Your task to perform on an android device: toggle sleep mode Image 0: 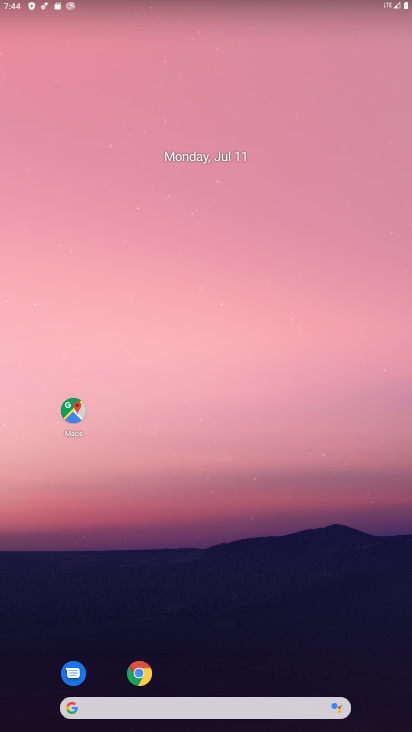
Step 0: drag from (155, 689) to (132, 332)
Your task to perform on an android device: toggle sleep mode Image 1: 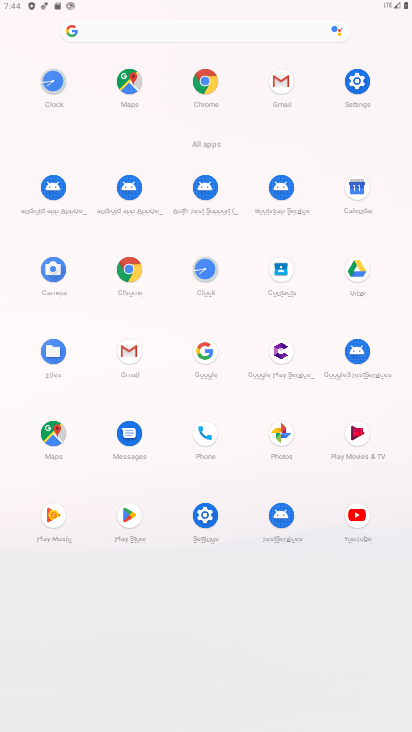
Step 1: click (355, 92)
Your task to perform on an android device: toggle sleep mode Image 2: 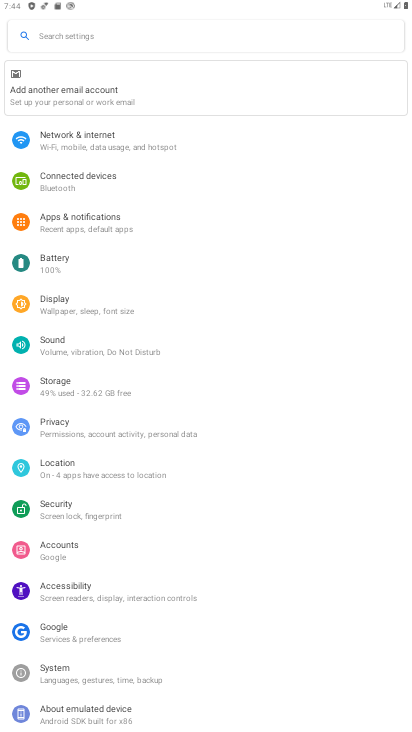
Step 2: click (97, 221)
Your task to perform on an android device: toggle sleep mode Image 3: 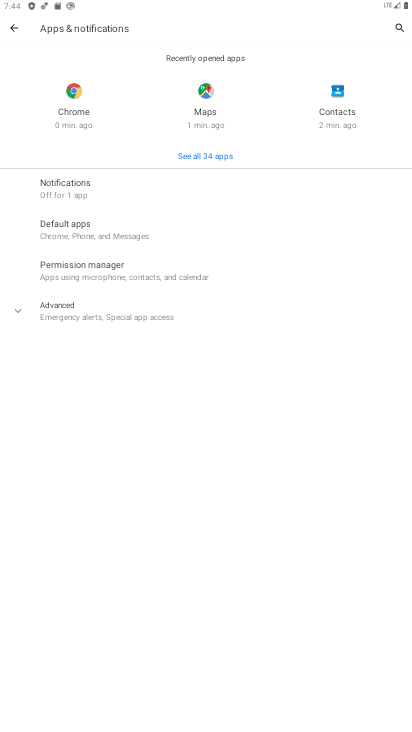
Step 3: task complete